Your task to perform on an android device: When is my next appointment? Image 0: 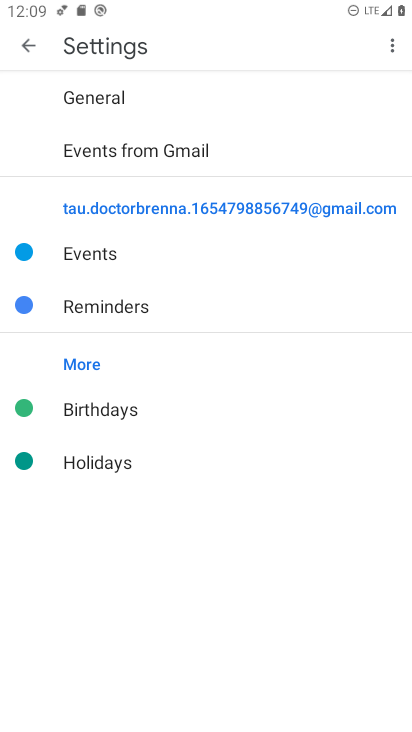
Step 0: press home button
Your task to perform on an android device: When is my next appointment? Image 1: 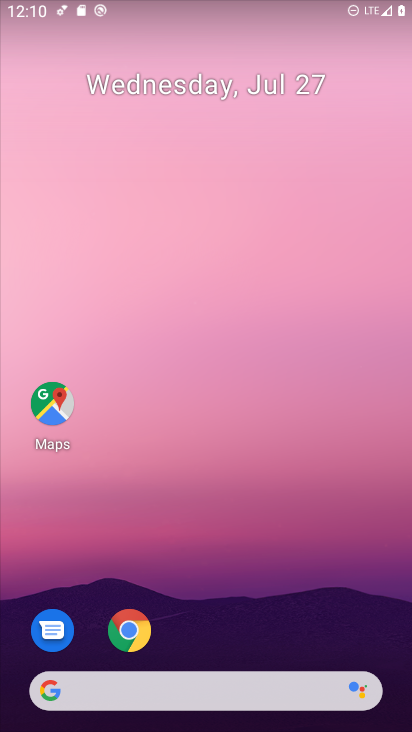
Step 1: drag from (376, 646) to (309, 188)
Your task to perform on an android device: When is my next appointment? Image 2: 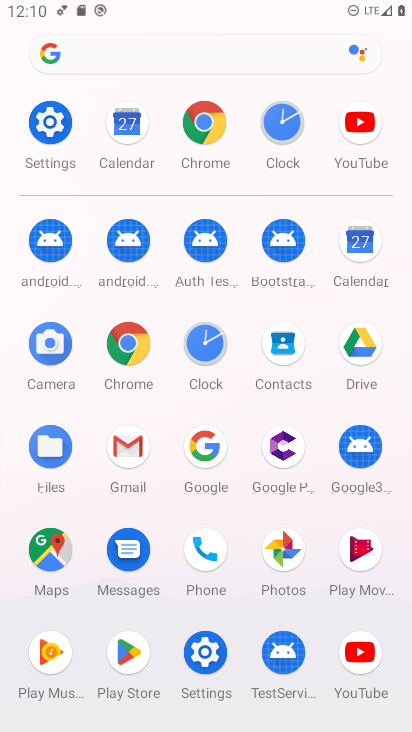
Step 2: click (357, 247)
Your task to perform on an android device: When is my next appointment? Image 3: 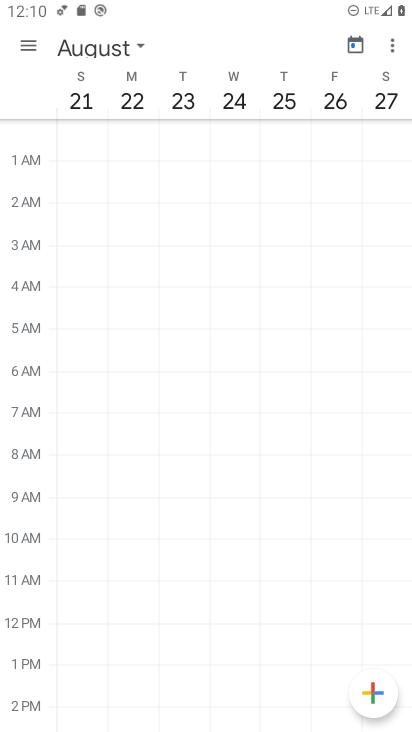
Step 3: click (35, 55)
Your task to perform on an android device: When is my next appointment? Image 4: 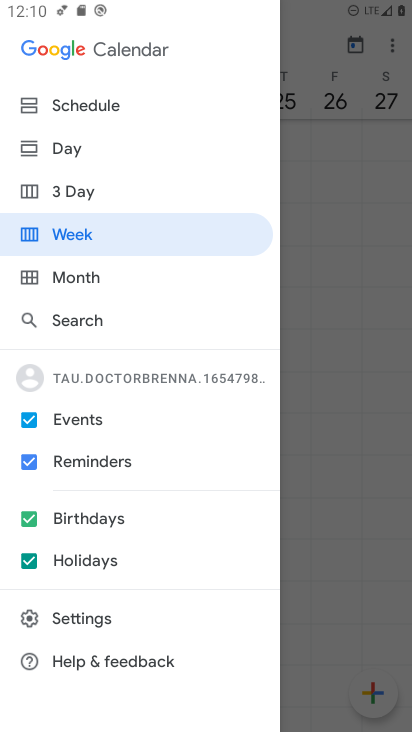
Step 4: click (74, 104)
Your task to perform on an android device: When is my next appointment? Image 5: 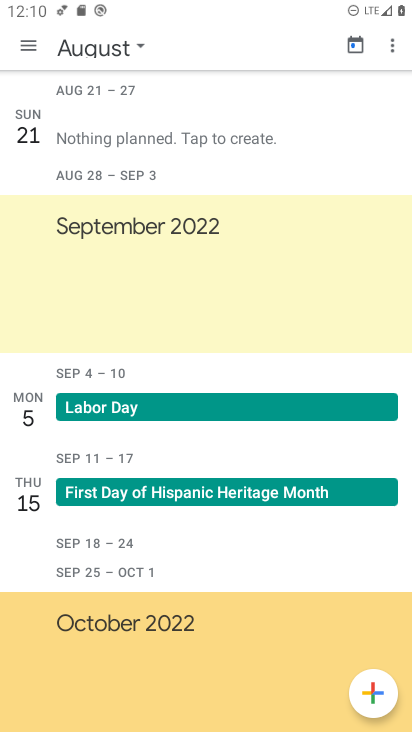
Step 5: task complete